Your task to perform on an android device: refresh tabs in the chrome app Image 0: 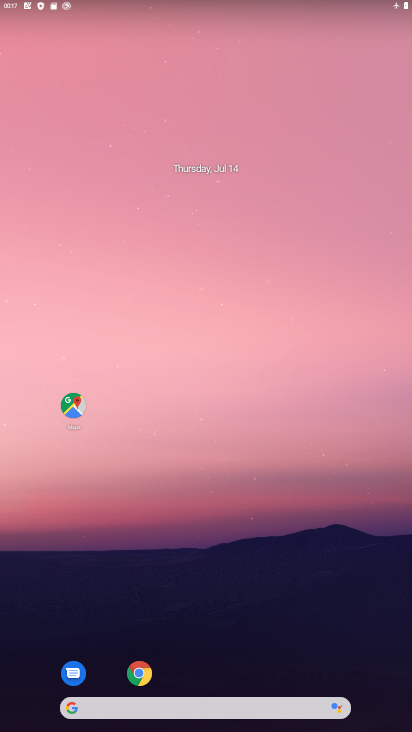
Step 0: click (138, 662)
Your task to perform on an android device: refresh tabs in the chrome app Image 1: 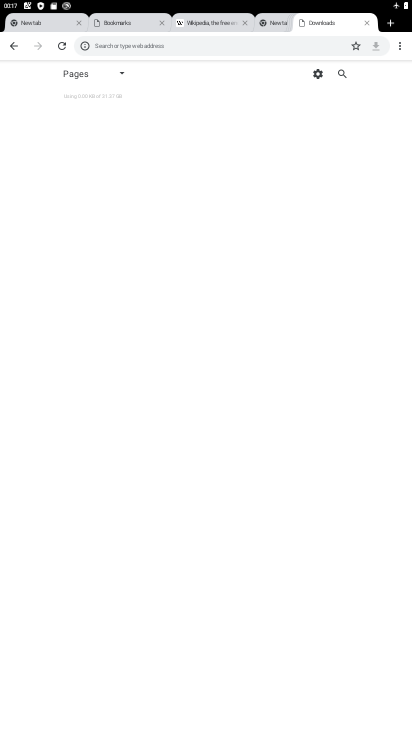
Step 1: click (67, 46)
Your task to perform on an android device: refresh tabs in the chrome app Image 2: 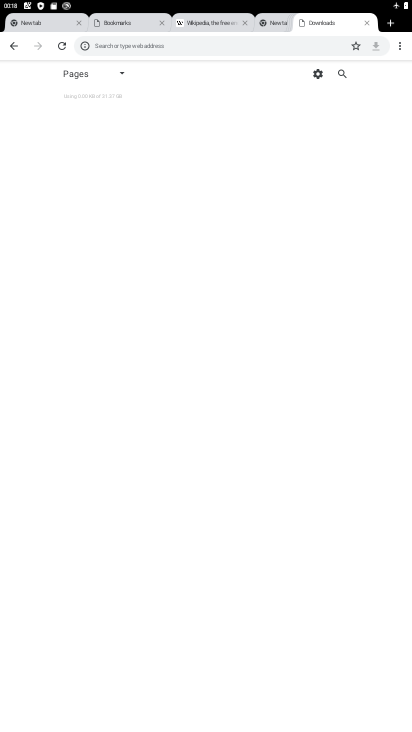
Step 2: task complete